Your task to perform on an android device: check the backup settings in the google photos Image 0: 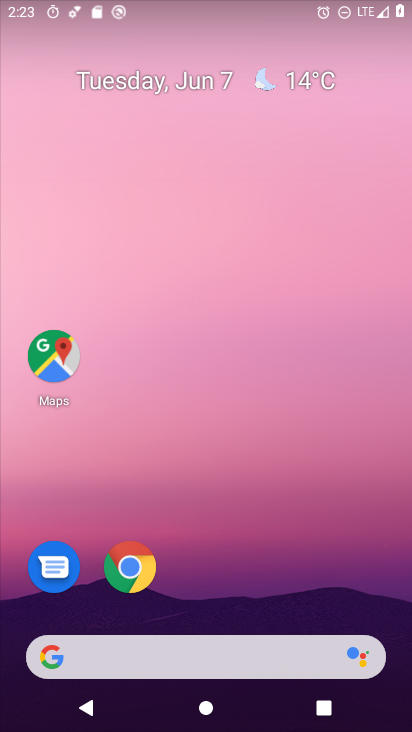
Step 0: drag from (267, 563) to (387, 103)
Your task to perform on an android device: check the backup settings in the google photos Image 1: 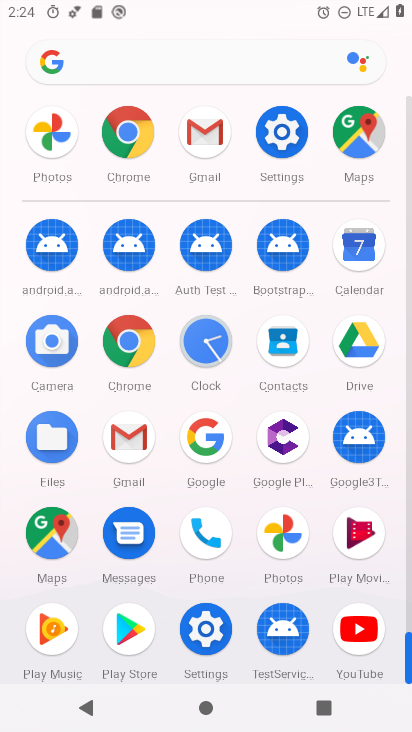
Step 1: click (277, 563)
Your task to perform on an android device: check the backup settings in the google photos Image 2: 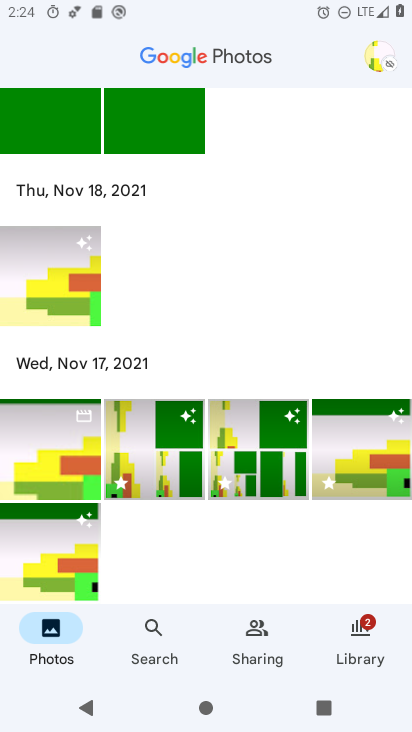
Step 2: click (383, 44)
Your task to perform on an android device: check the backup settings in the google photos Image 3: 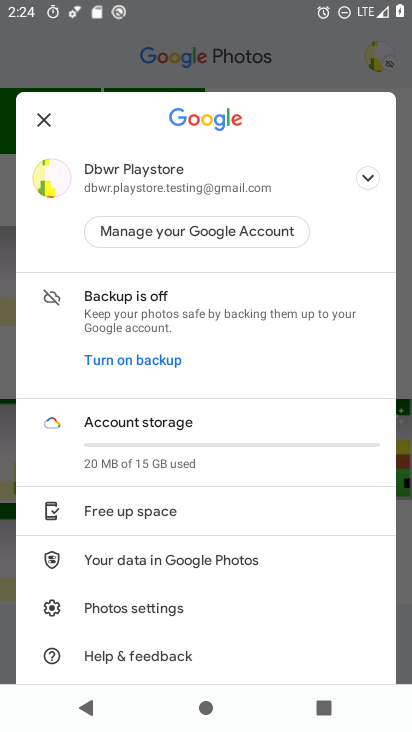
Step 3: click (115, 300)
Your task to perform on an android device: check the backup settings in the google photos Image 4: 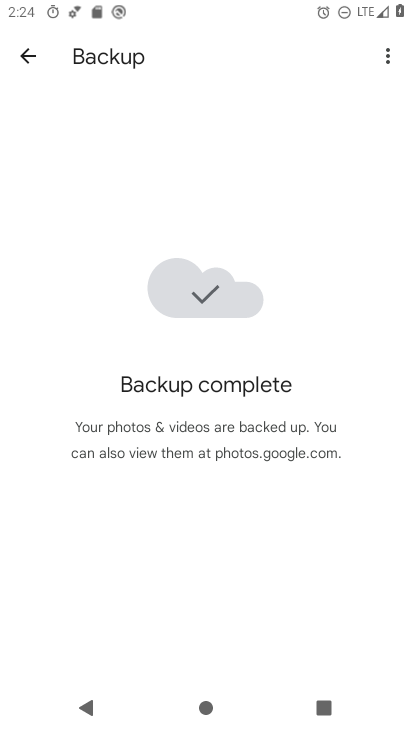
Step 4: task complete